Your task to perform on an android device: Do I have any events tomorrow? Image 0: 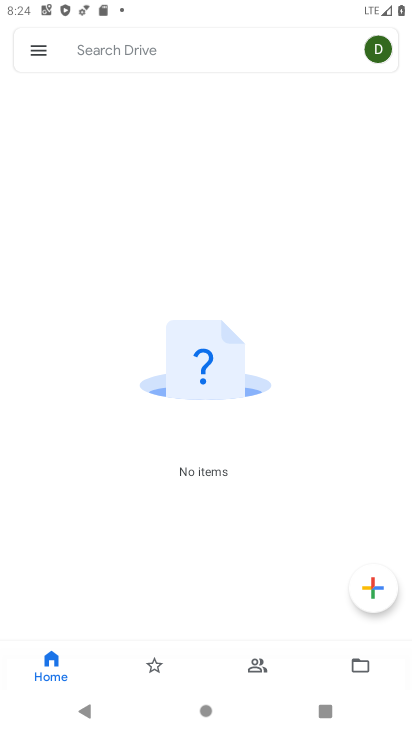
Step 0: press home button
Your task to perform on an android device: Do I have any events tomorrow? Image 1: 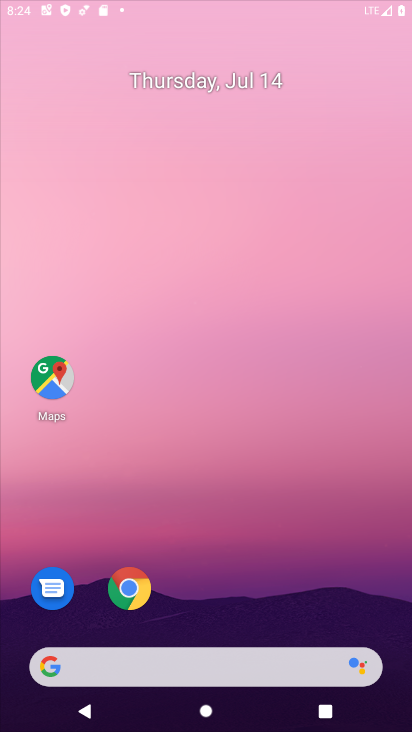
Step 1: drag from (393, 669) to (183, 21)
Your task to perform on an android device: Do I have any events tomorrow? Image 2: 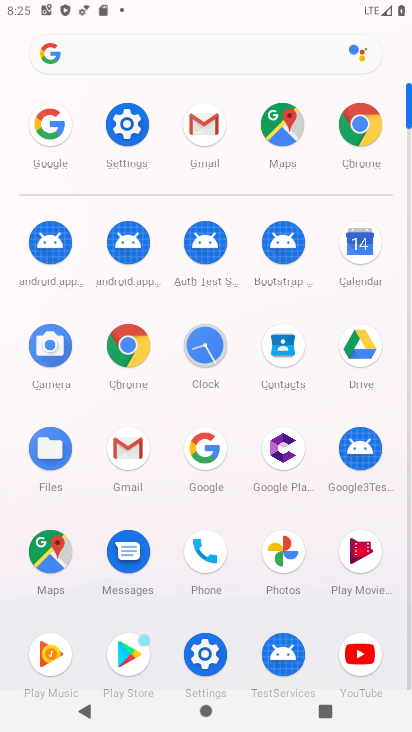
Step 2: click (377, 248)
Your task to perform on an android device: Do I have any events tomorrow? Image 3: 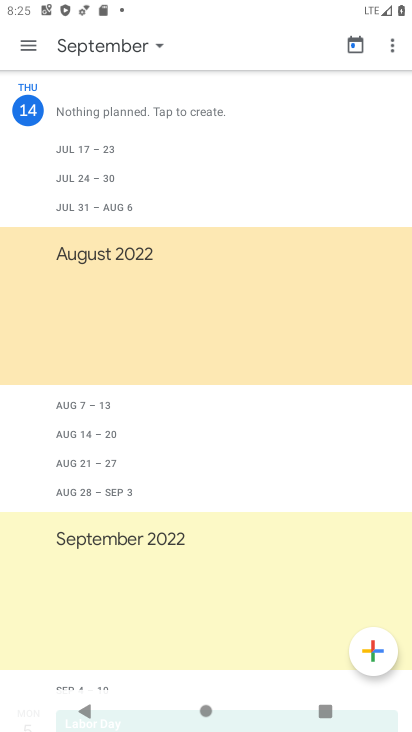
Step 3: task complete